Your task to perform on an android device: Go to network settings Image 0: 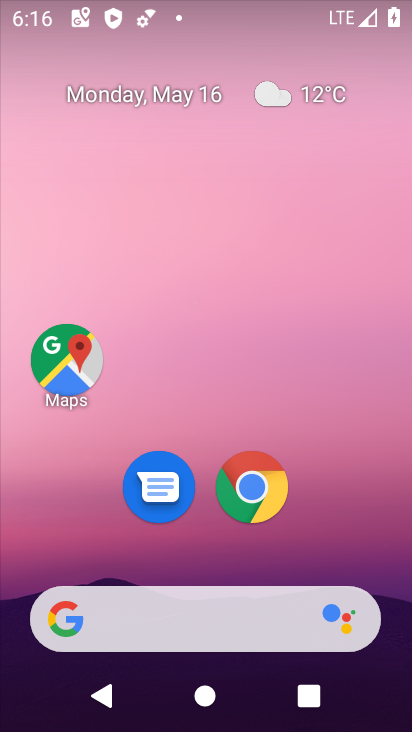
Step 0: drag from (335, 535) to (273, 136)
Your task to perform on an android device: Go to network settings Image 1: 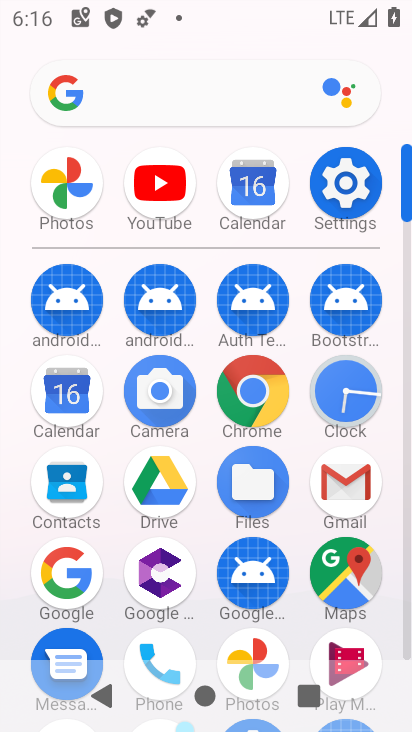
Step 1: click (350, 200)
Your task to perform on an android device: Go to network settings Image 2: 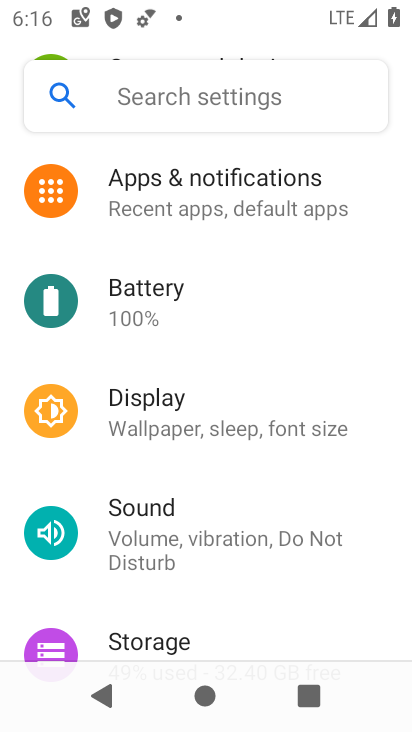
Step 2: drag from (52, 352) to (40, 470)
Your task to perform on an android device: Go to network settings Image 3: 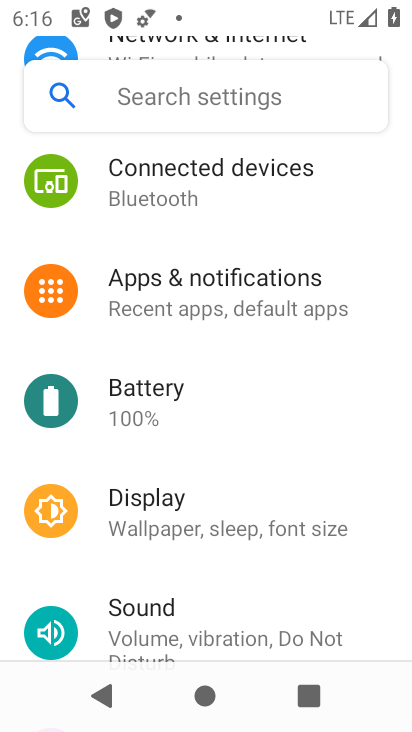
Step 3: drag from (135, 526) to (175, 221)
Your task to perform on an android device: Go to network settings Image 4: 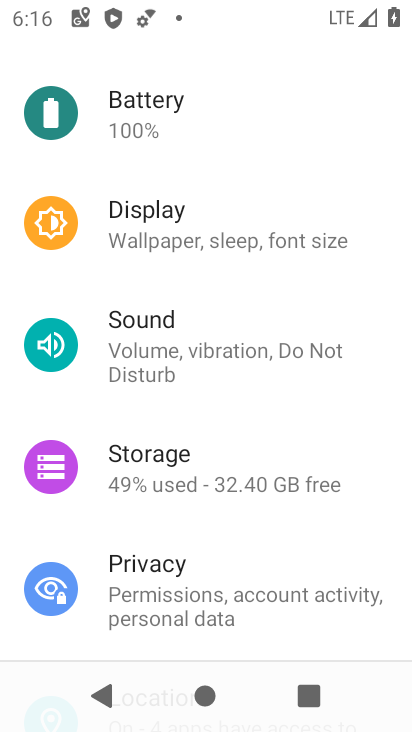
Step 4: drag from (167, 250) to (200, 608)
Your task to perform on an android device: Go to network settings Image 5: 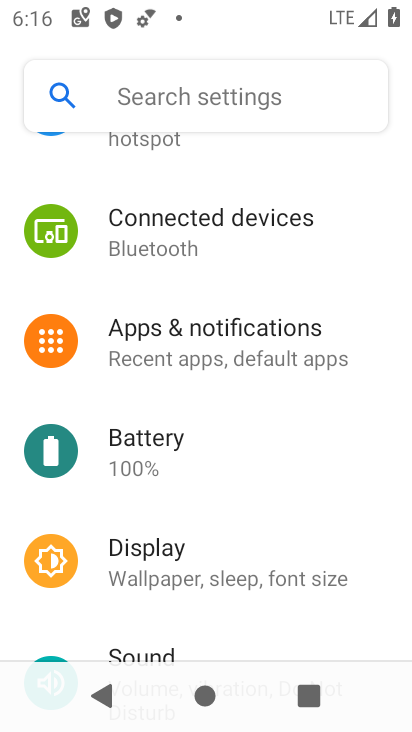
Step 5: drag from (274, 333) to (231, 621)
Your task to perform on an android device: Go to network settings Image 6: 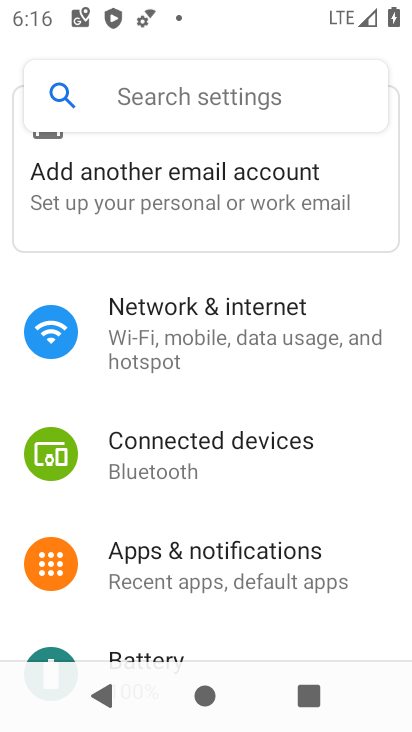
Step 6: click (198, 328)
Your task to perform on an android device: Go to network settings Image 7: 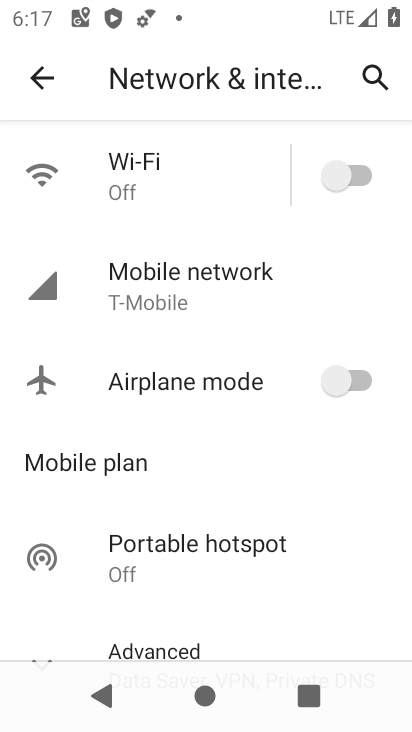
Step 7: click (171, 163)
Your task to perform on an android device: Go to network settings Image 8: 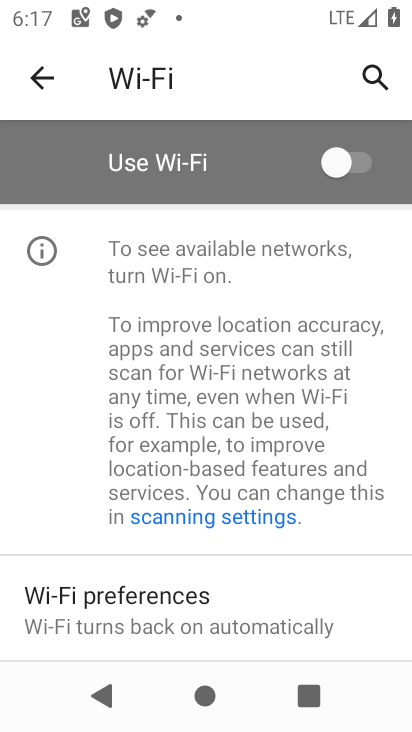
Step 8: click (33, 75)
Your task to perform on an android device: Go to network settings Image 9: 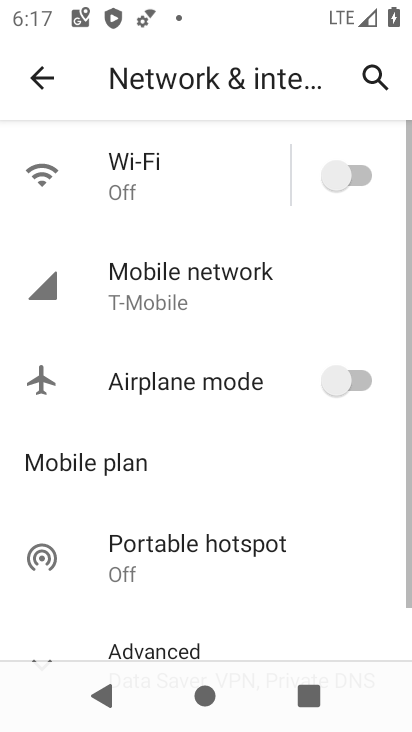
Step 9: task complete